Your task to perform on an android device: Open Google Image 0: 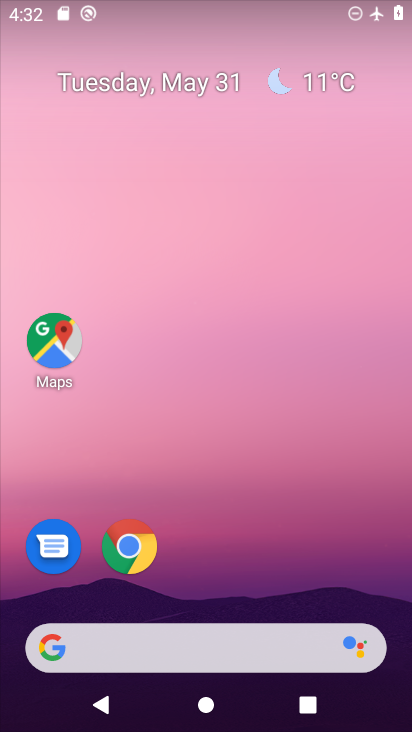
Step 0: drag from (314, 527) to (219, 31)
Your task to perform on an android device: Open Google Image 1: 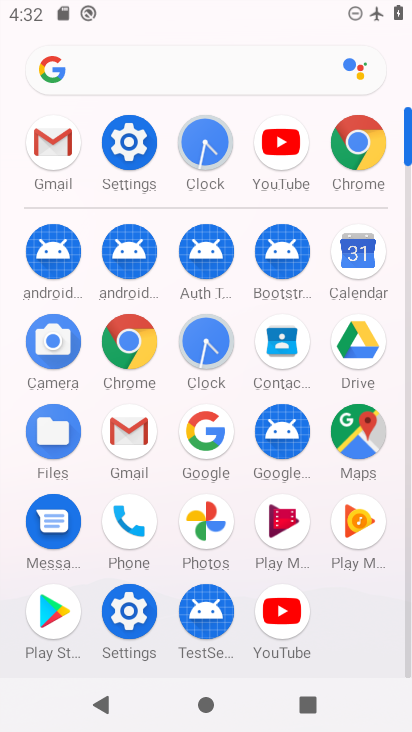
Step 1: click (204, 437)
Your task to perform on an android device: Open Google Image 2: 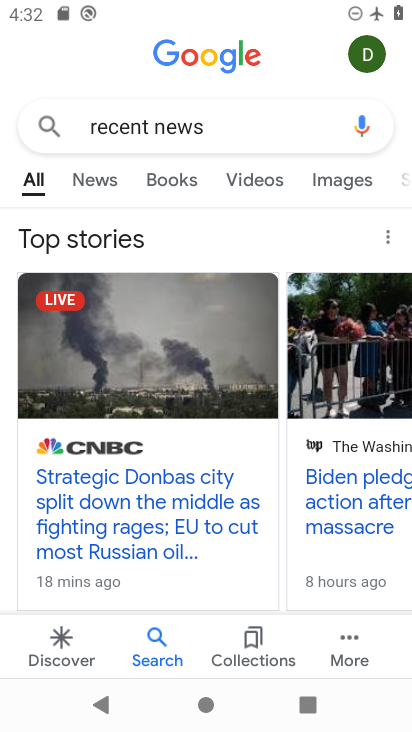
Step 2: task complete